Your task to perform on an android device: find photos in the google photos app Image 0: 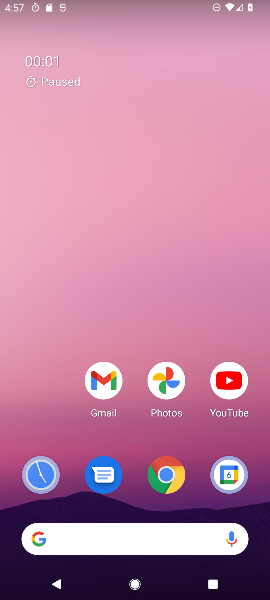
Step 0: click (155, 381)
Your task to perform on an android device: find photos in the google photos app Image 1: 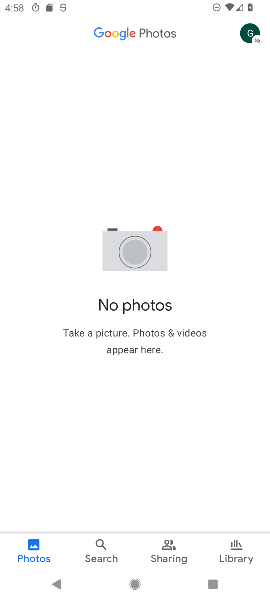
Step 1: task complete